Your task to perform on an android device: Open calendar and show me the first week of next month Image 0: 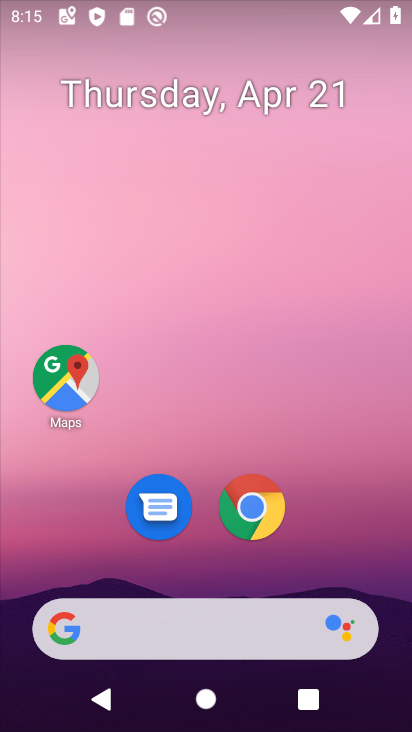
Step 0: drag from (364, 544) to (384, 88)
Your task to perform on an android device: Open calendar and show me the first week of next month Image 1: 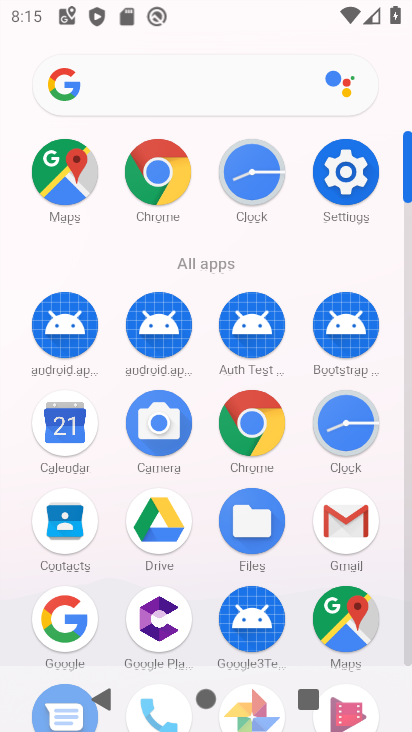
Step 1: click (47, 443)
Your task to perform on an android device: Open calendar and show me the first week of next month Image 2: 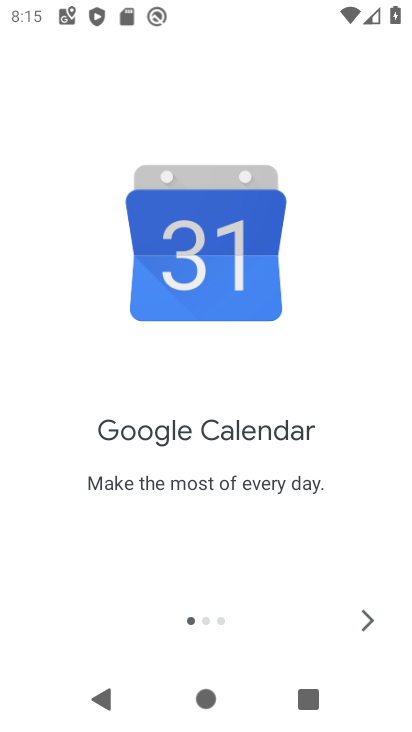
Step 2: click (372, 619)
Your task to perform on an android device: Open calendar and show me the first week of next month Image 3: 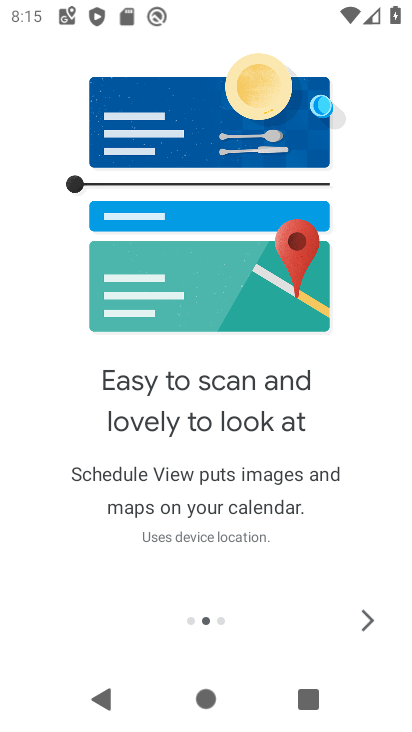
Step 3: click (372, 618)
Your task to perform on an android device: Open calendar and show me the first week of next month Image 4: 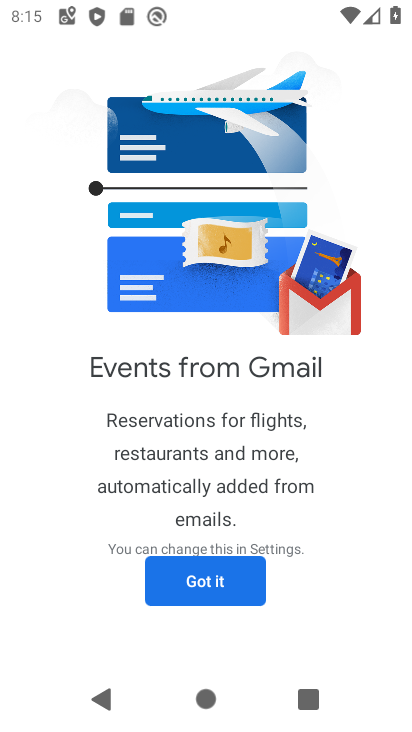
Step 4: click (226, 582)
Your task to perform on an android device: Open calendar and show me the first week of next month Image 5: 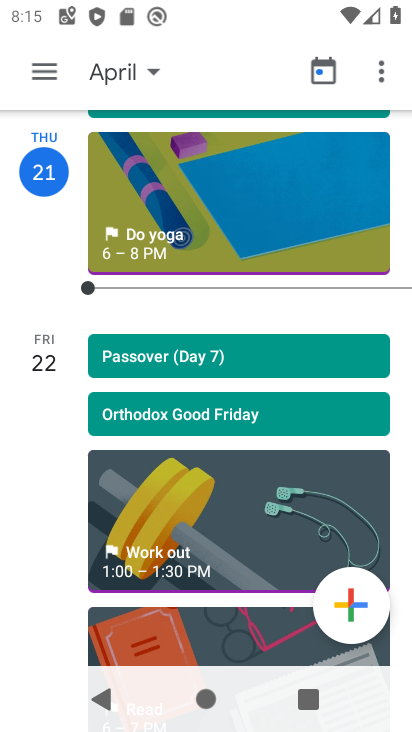
Step 5: click (106, 73)
Your task to perform on an android device: Open calendar and show me the first week of next month Image 6: 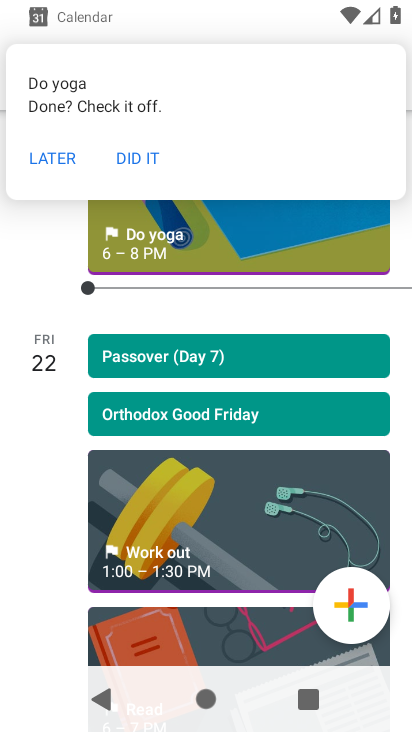
Step 6: click (60, 160)
Your task to perform on an android device: Open calendar and show me the first week of next month Image 7: 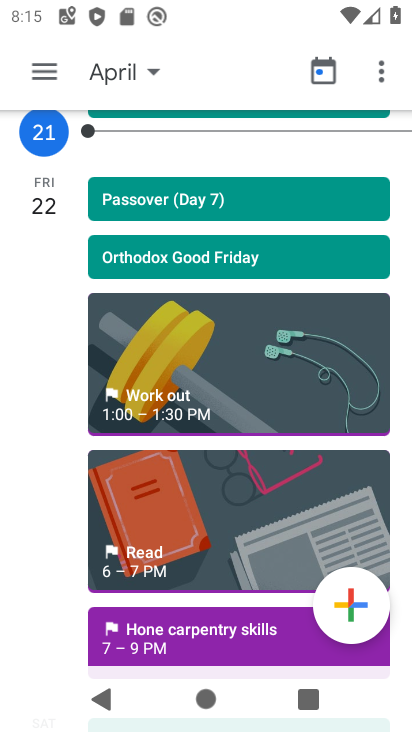
Step 7: click (137, 78)
Your task to perform on an android device: Open calendar and show me the first week of next month Image 8: 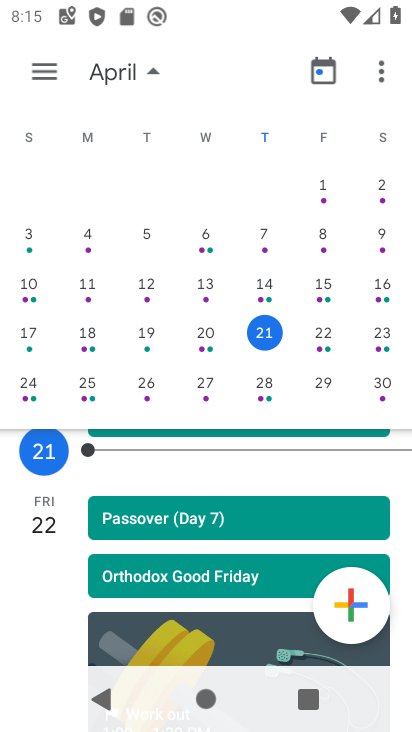
Step 8: drag from (399, 169) to (3, 152)
Your task to perform on an android device: Open calendar and show me the first week of next month Image 9: 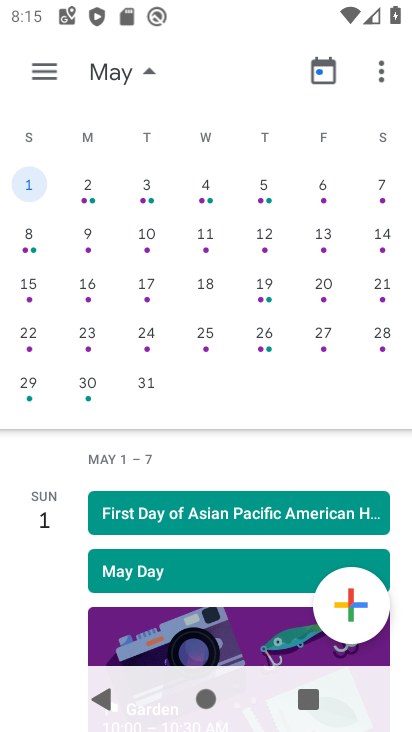
Step 9: click (20, 183)
Your task to perform on an android device: Open calendar and show me the first week of next month Image 10: 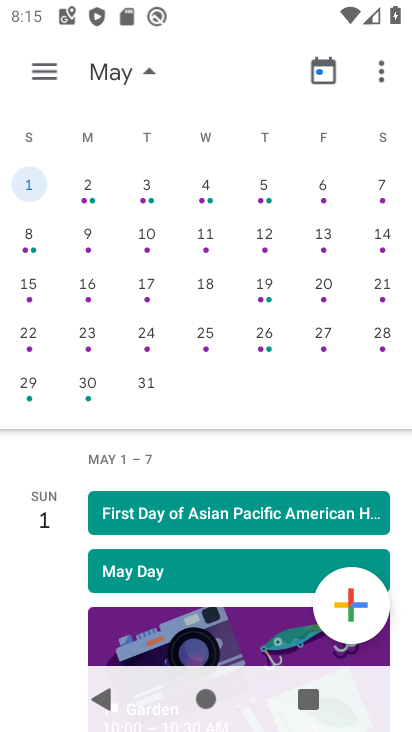
Step 10: task complete